Your task to perform on an android device: set the stopwatch Image 0: 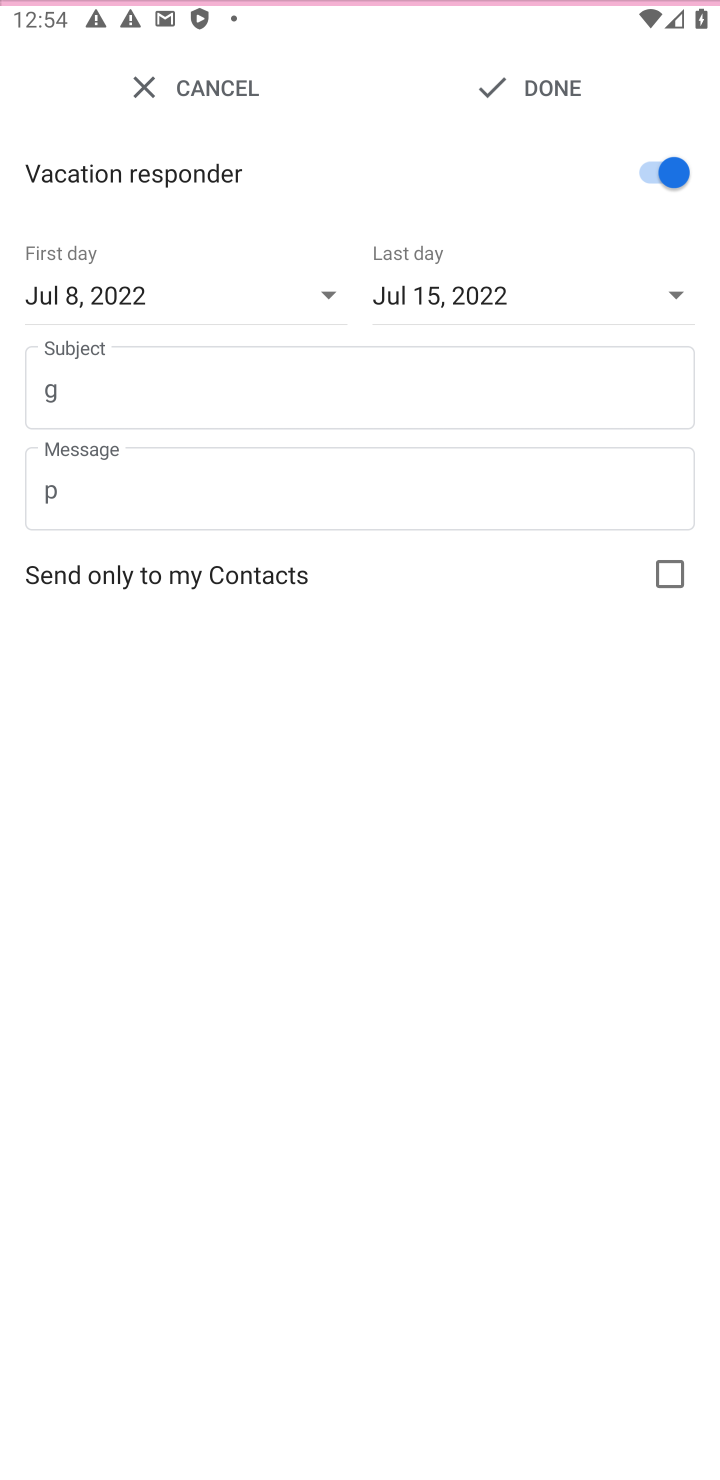
Step 0: press home button
Your task to perform on an android device: set the stopwatch Image 1: 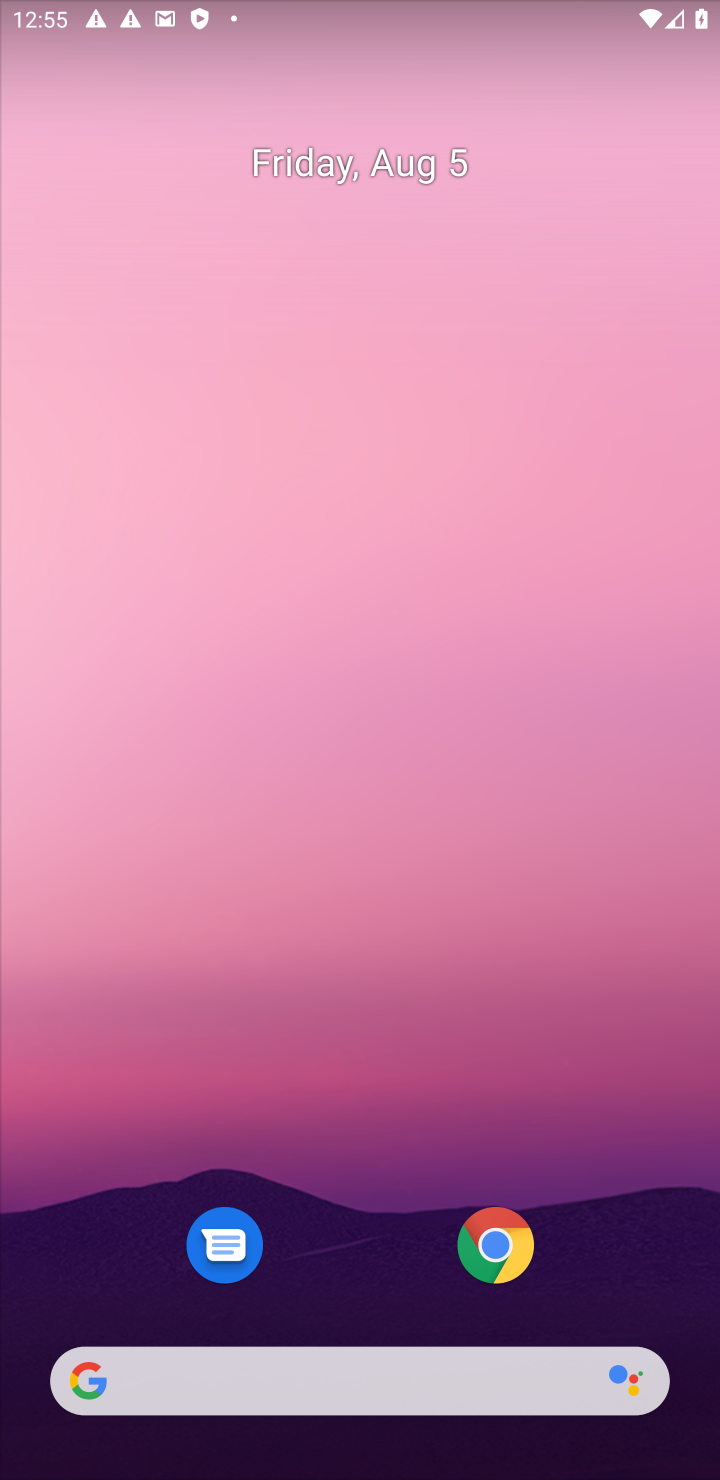
Step 1: drag from (358, 1293) to (435, 174)
Your task to perform on an android device: set the stopwatch Image 2: 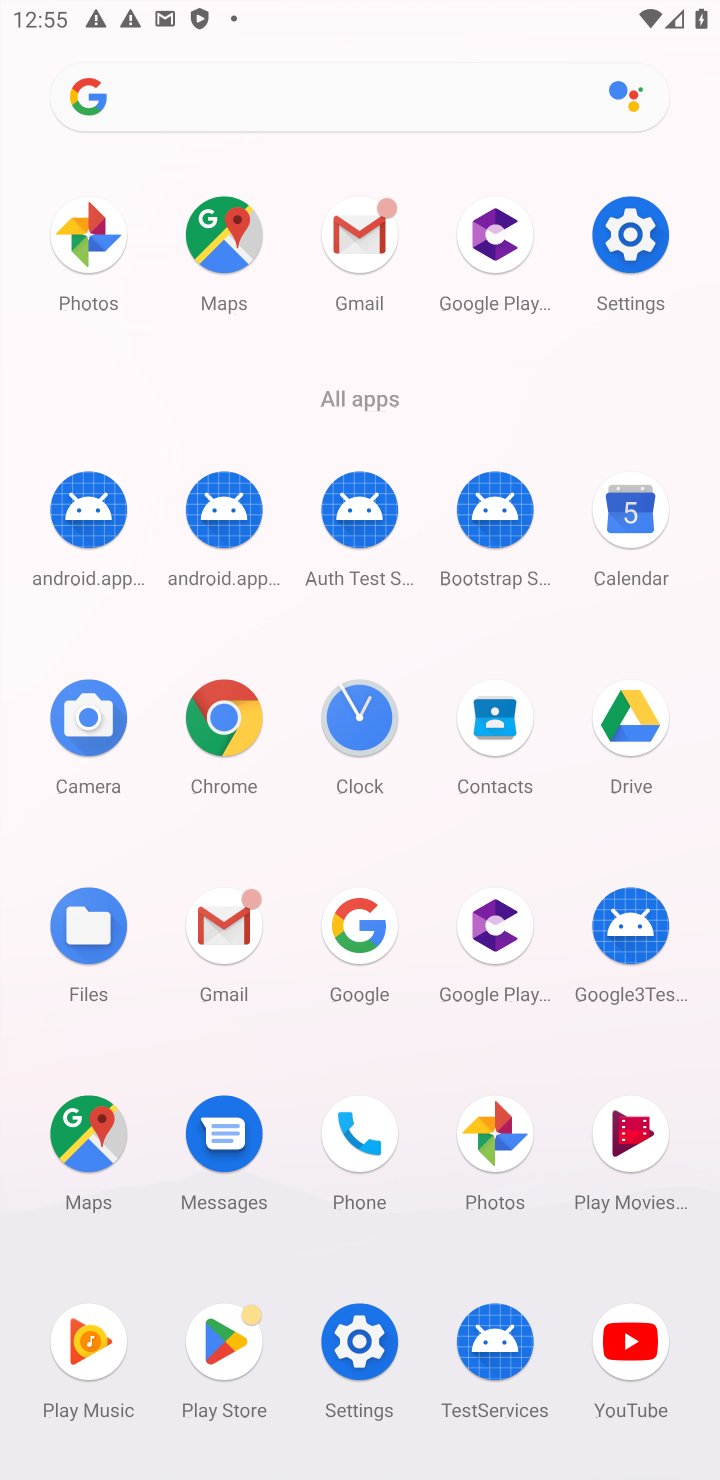
Step 2: click (353, 734)
Your task to perform on an android device: set the stopwatch Image 3: 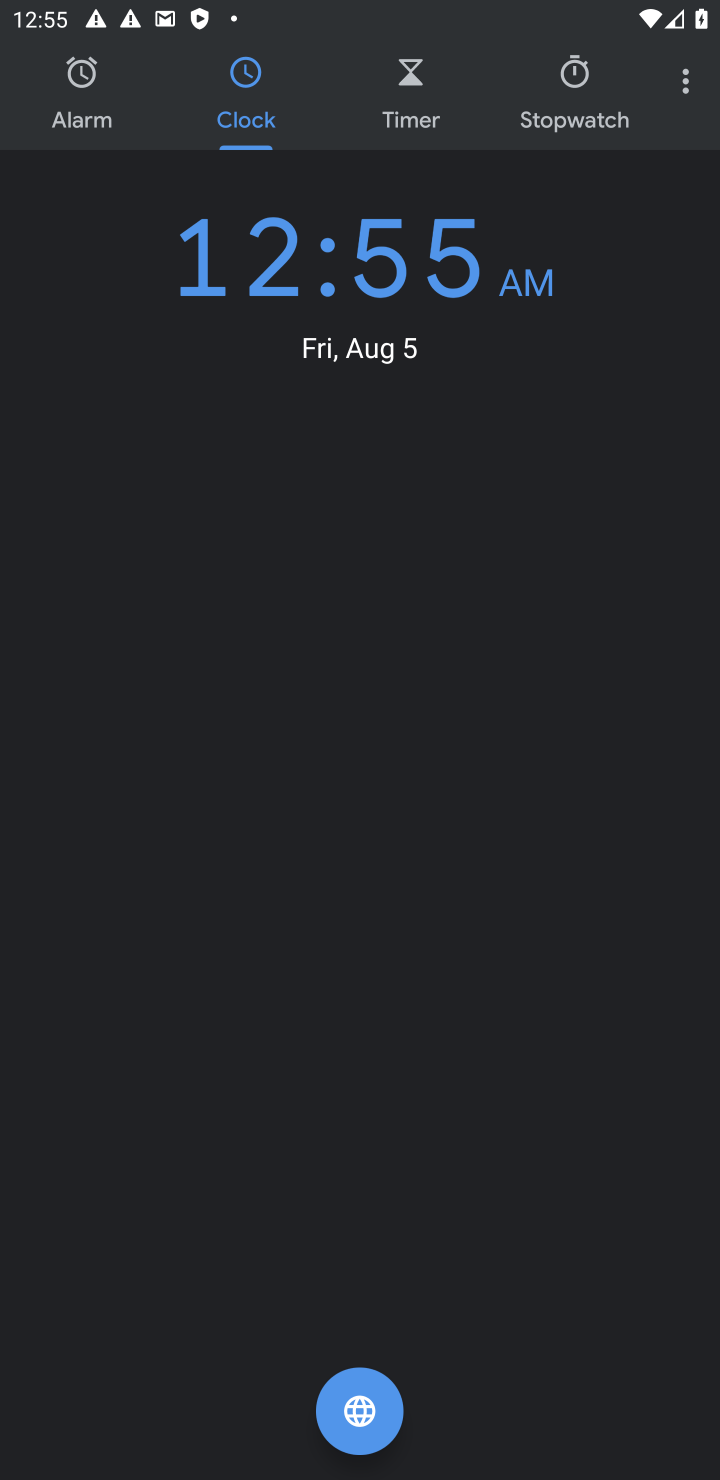
Step 3: click (565, 79)
Your task to perform on an android device: set the stopwatch Image 4: 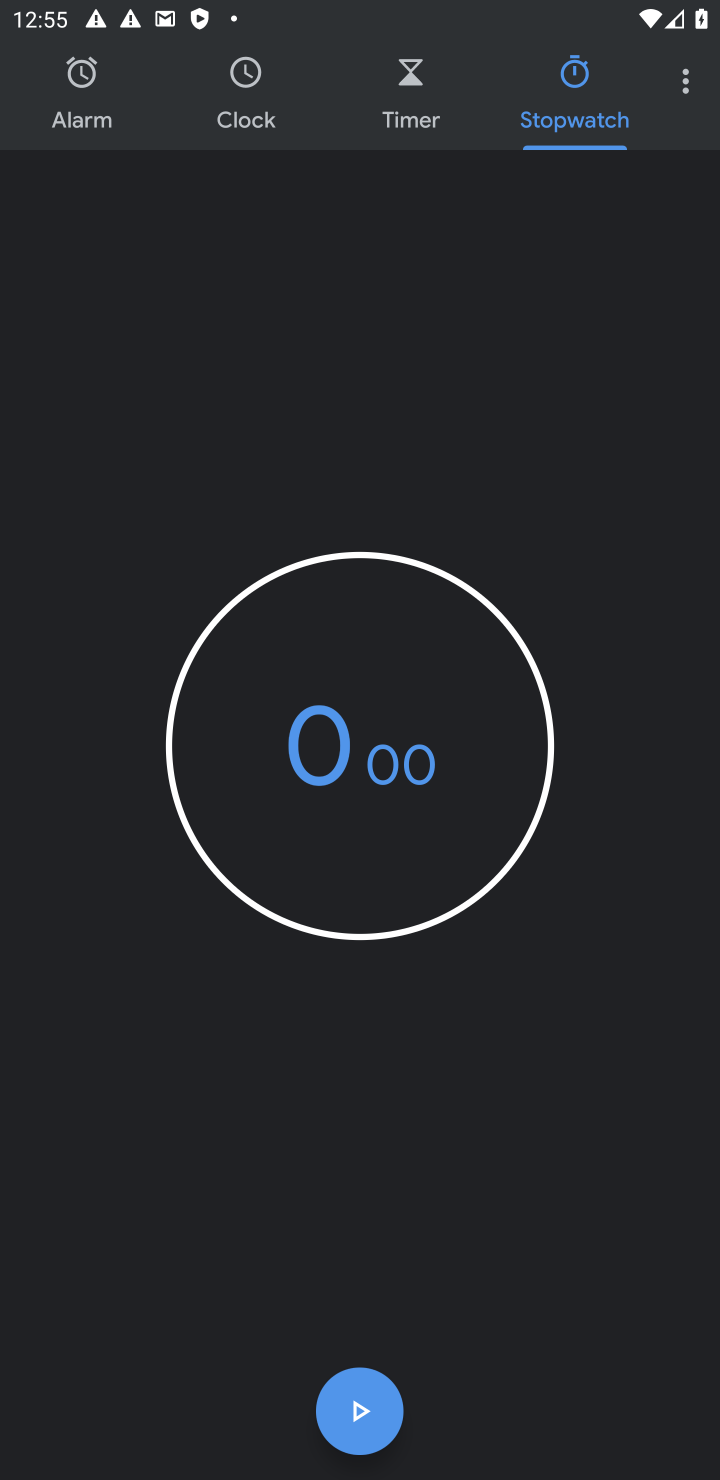
Step 4: click (338, 1418)
Your task to perform on an android device: set the stopwatch Image 5: 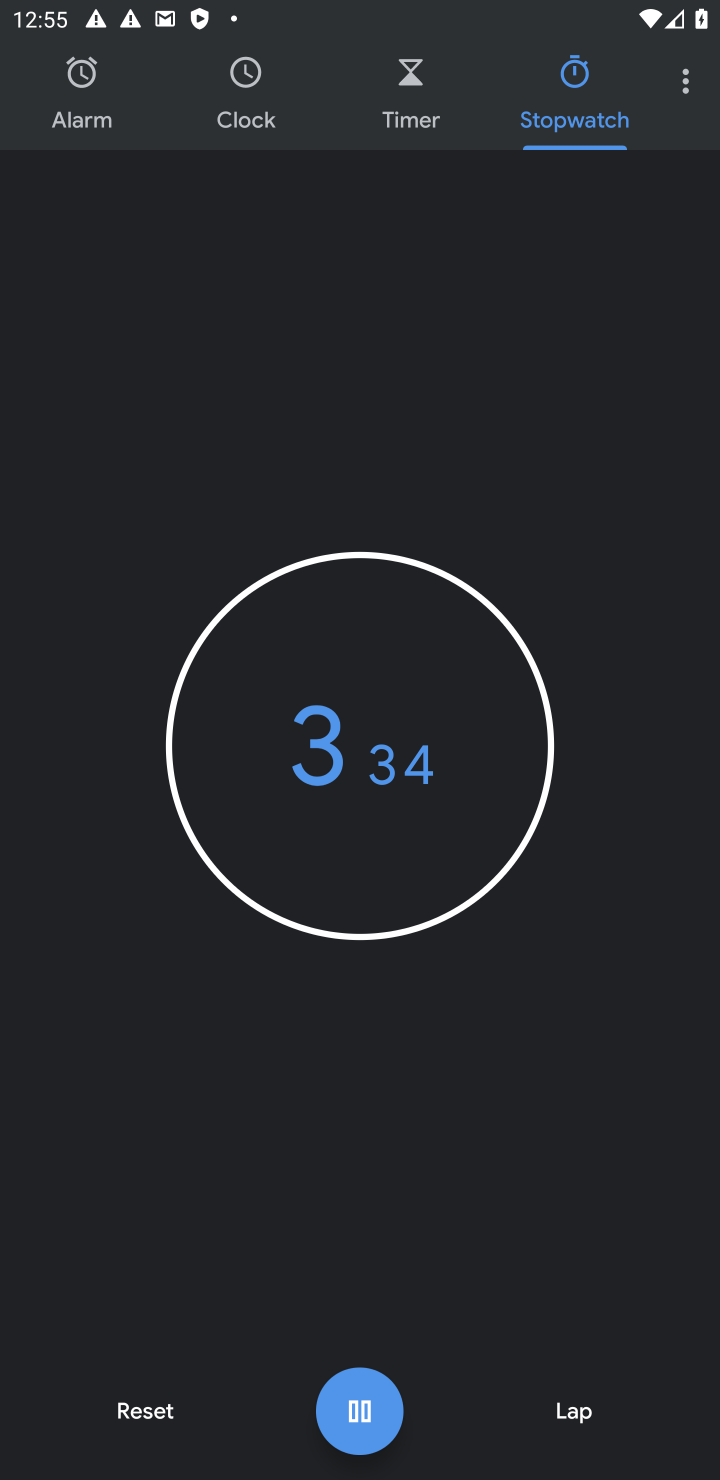
Step 5: task complete